Your task to perform on an android device: turn on showing notifications on the lock screen Image 0: 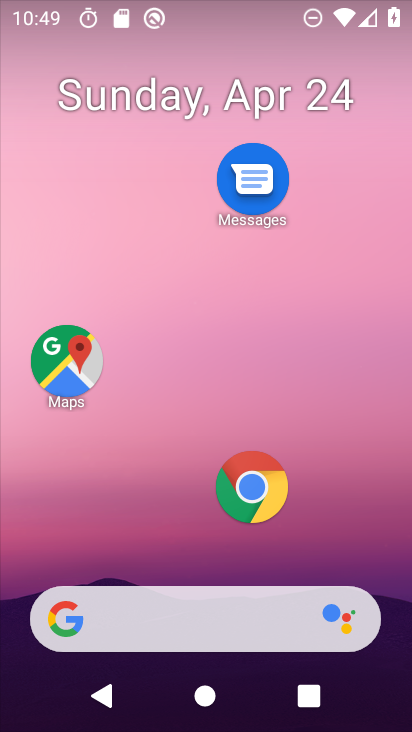
Step 0: drag from (175, 567) to (349, 17)
Your task to perform on an android device: turn on showing notifications on the lock screen Image 1: 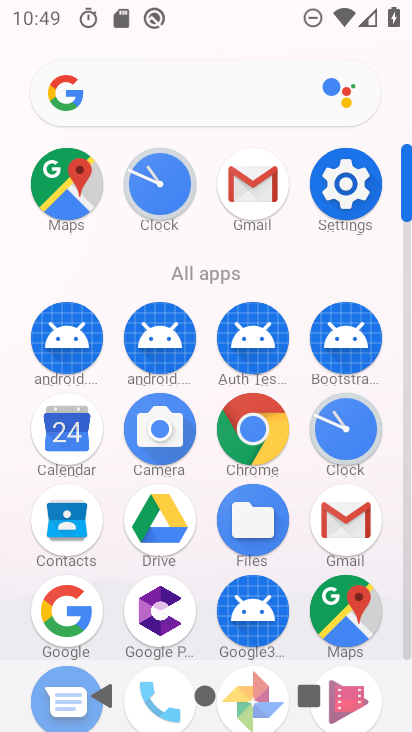
Step 1: click (354, 192)
Your task to perform on an android device: turn on showing notifications on the lock screen Image 2: 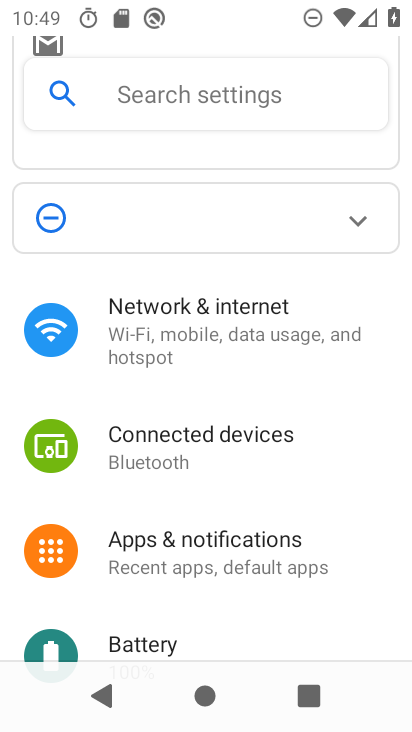
Step 2: click (219, 565)
Your task to perform on an android device: turn on showing notifications on the lock screen Image 3: 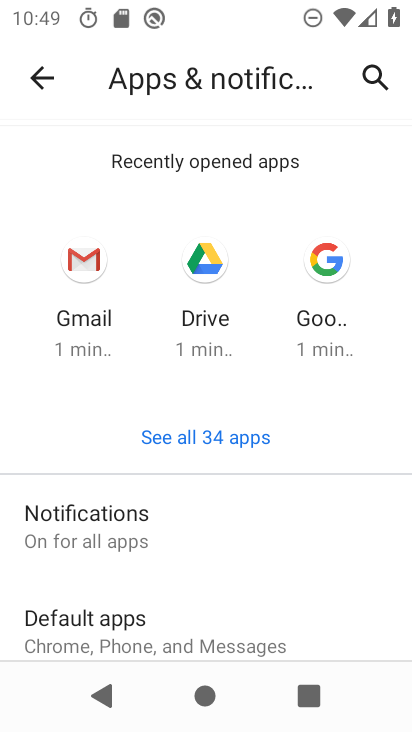
Step 3: drag from (167, 552) to (209, 315)
Your task to perform on an android device: turn on showing notifications on the lock screen Image 4: 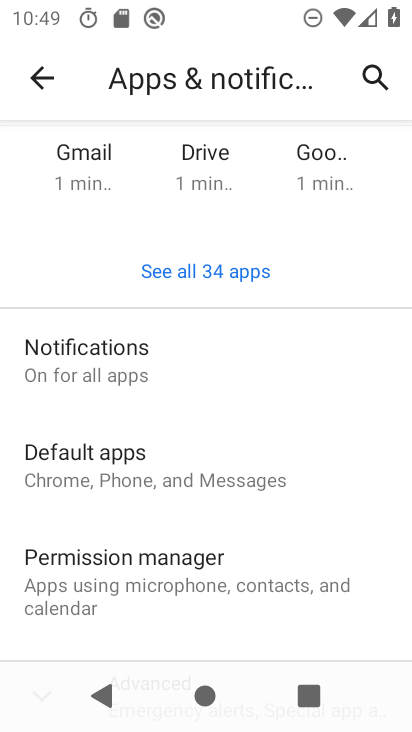
Step 4: click (115, 388)
Your task to perform on an android device: turn on showing notifications on the lock screen Image 5: 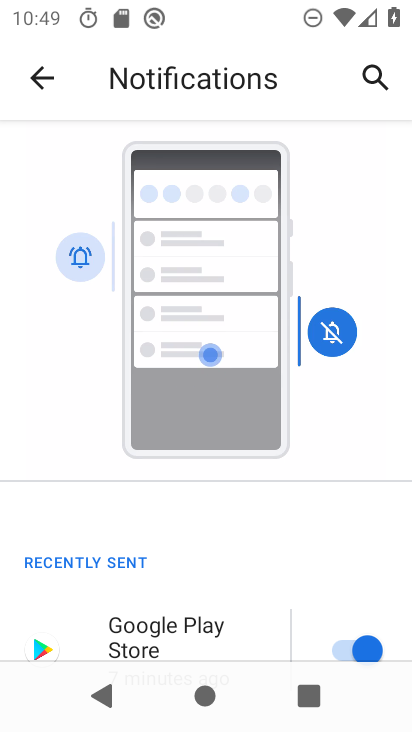
Step 5: drag from (142, 464) to (273, 129)
Your task to perform on an android device: turn on showing notifications on the lock screen Image 6: 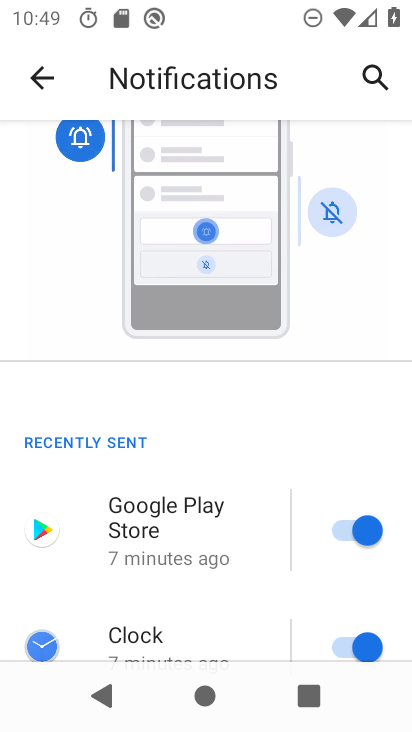
Step 6: drag from (191, 559) to (253, 229)
Your task to perform on an android device: turn on showing notifications on the lock screen Image 7: 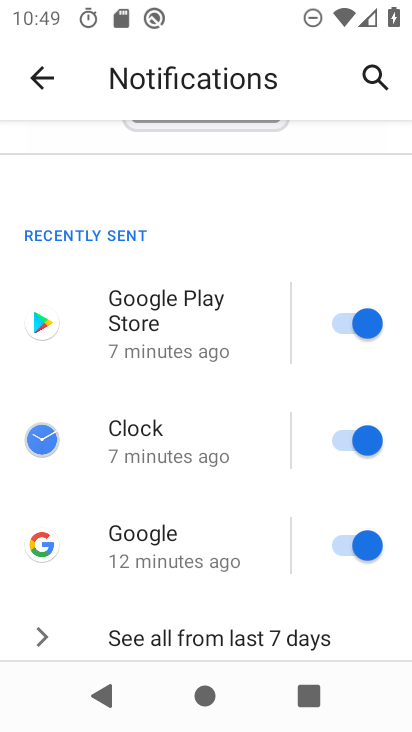
Step 7: drag from (198, 533) to (259, 246)
Your task to perform on an android device: turn on showing notifications on the lock screen Image 8: 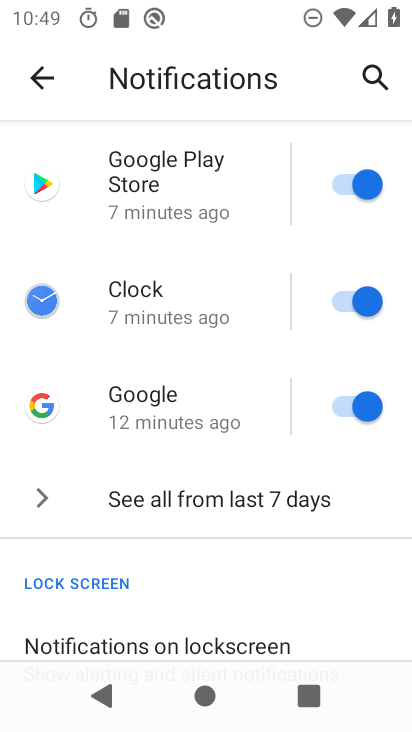
Step 8: drag from (164, 568) to (251, 205)
Your task to perform on an android device: turn on showing notifications on the lock screen Image 9: 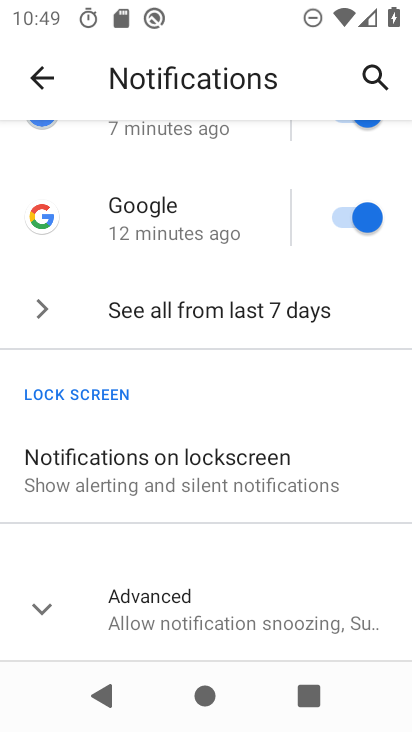
Step 9: click (160, 493)
Your task to perform on an android device: turn on showing notifications on the lock screen Image 10: 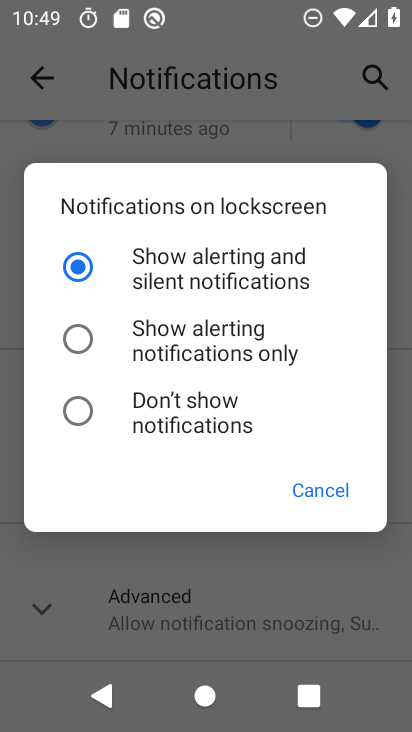
Step 10: task complete